Your task to perform on an android device: What's a good restaurant in Dallas? Image 0: 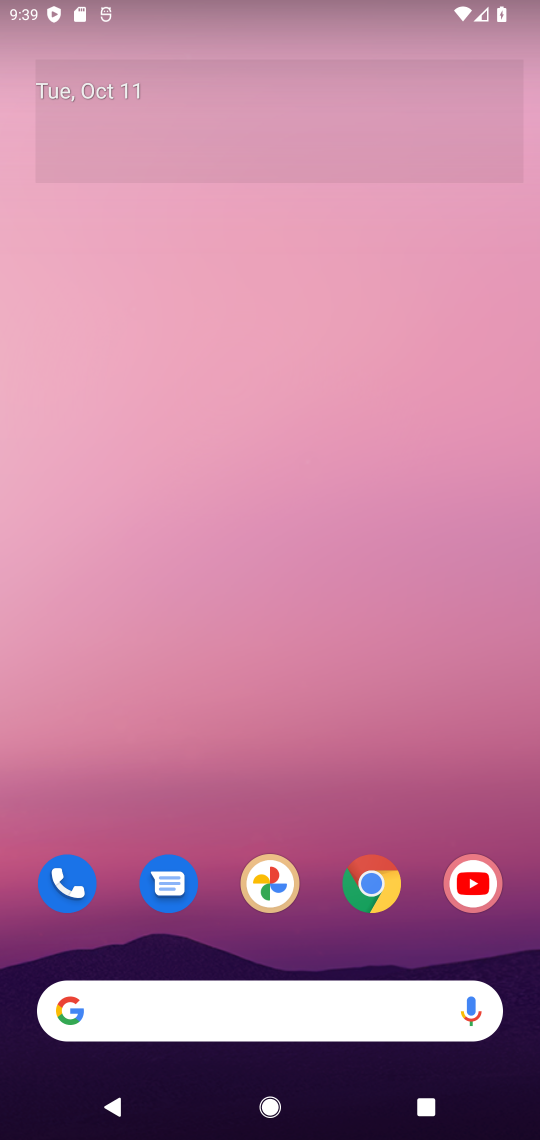
Step 0: click (67, 1012)
Your task to perform on an android device: What's a good restaurant in Dallas? Image 1: 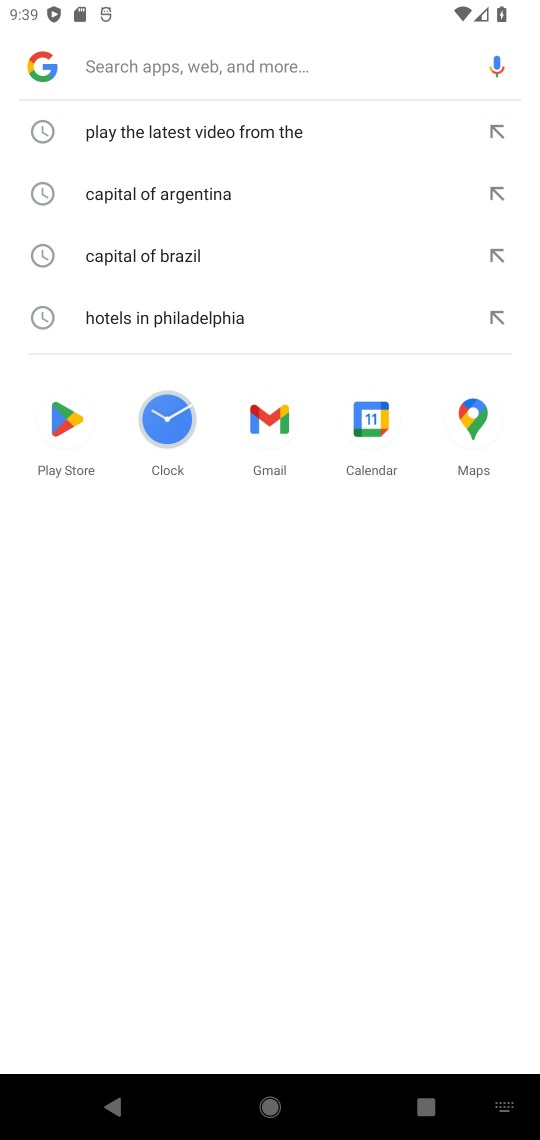
Step 1: type "What's a good restaurant in Dallas?"
Your task to perform on an android device: What's a good restaurant in Dallas? Image 2: 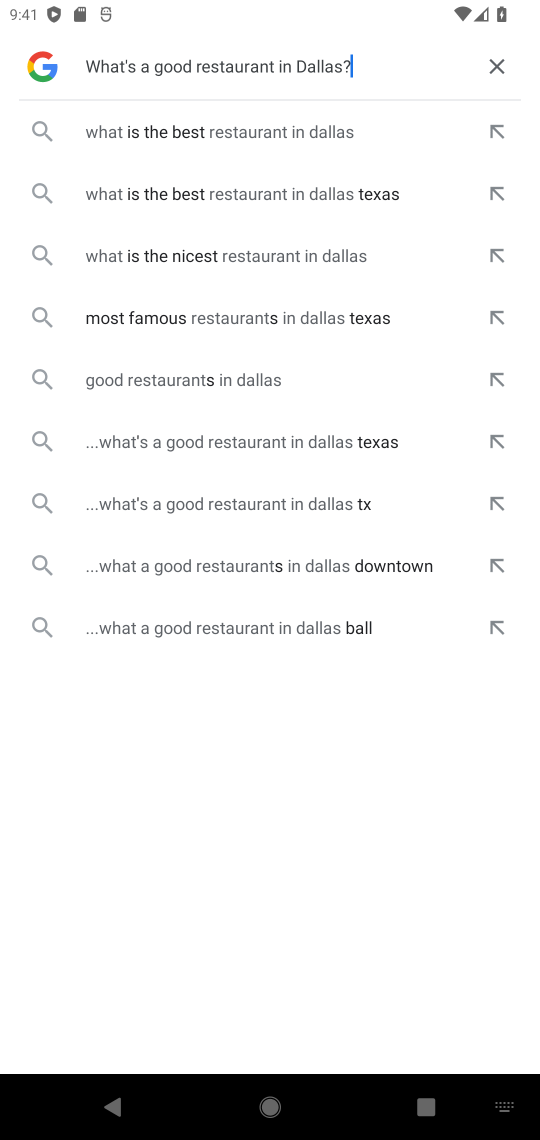
Step 2: task complete